Your task to perform on an android device: What's the weather? Image 0: 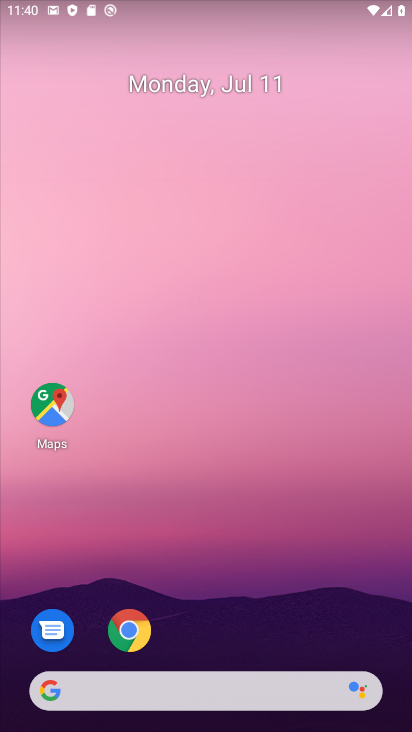
Step 0: drag from (283, 638) to (187, 24)
Your task to perform on an android device: What's the weather? Image 1: 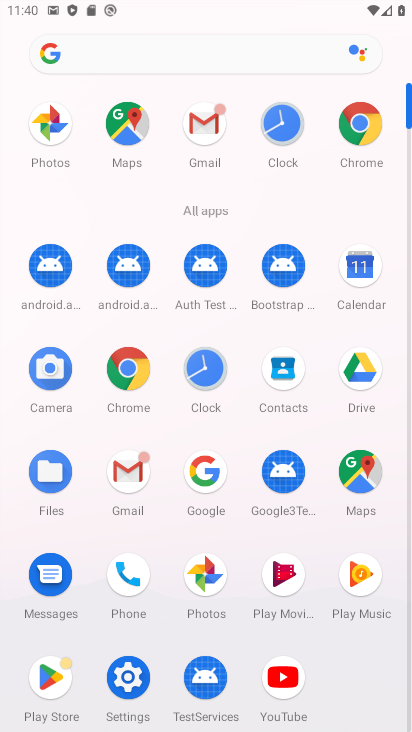
Step 1: click (370, 118)
Your task to perform on an android device: What's the weather? Image 2: 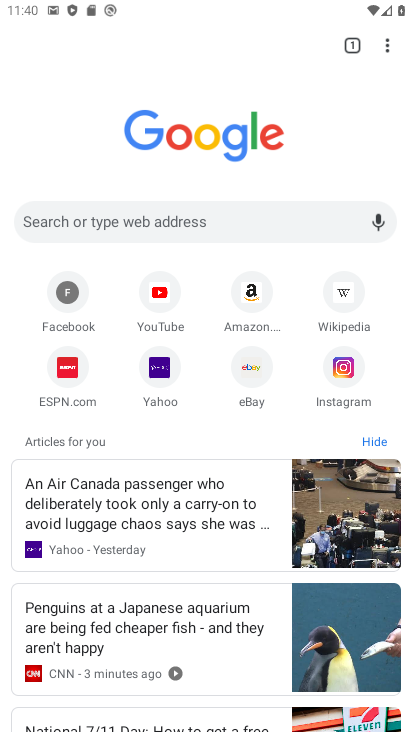
Step 2: click (235, 219)
Your task to perform on an android device: What's the weather? Image 3: 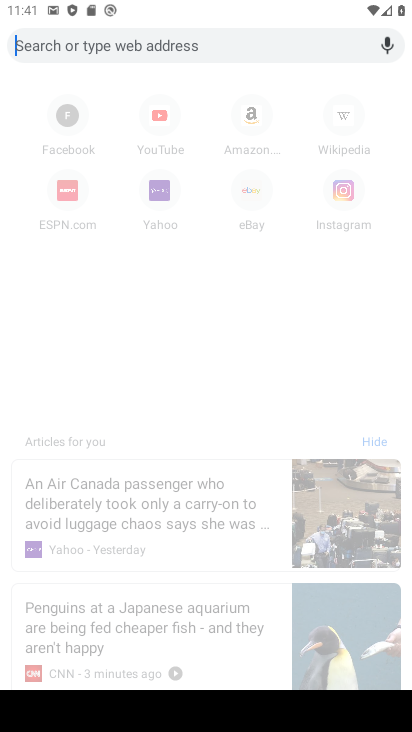
Step 3: type "What's the weather?"
Your task to perform on an android device: What's the weather? Image 4: 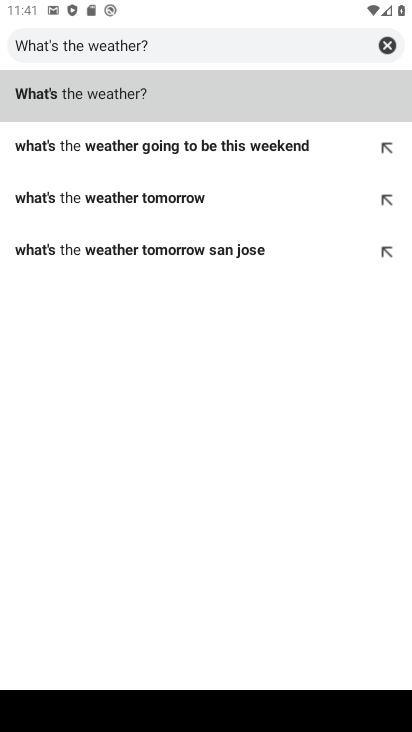
Step 4: click (146, 88)
Your task to perform on an android device: What's the weather? Image 5: 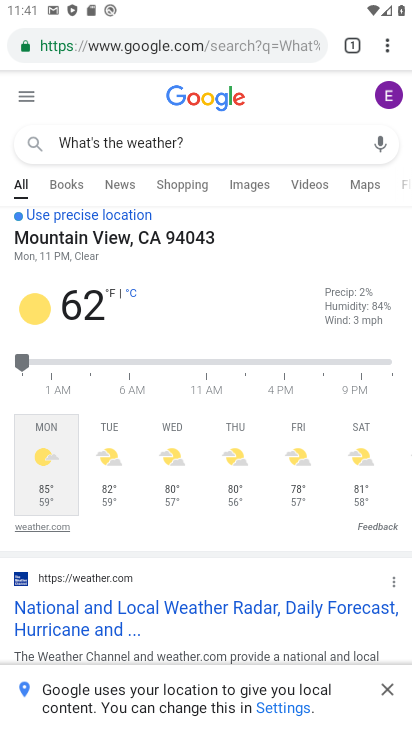
Step 5: task complete